Your task to perform on an android device: Open my contact list Image 0: 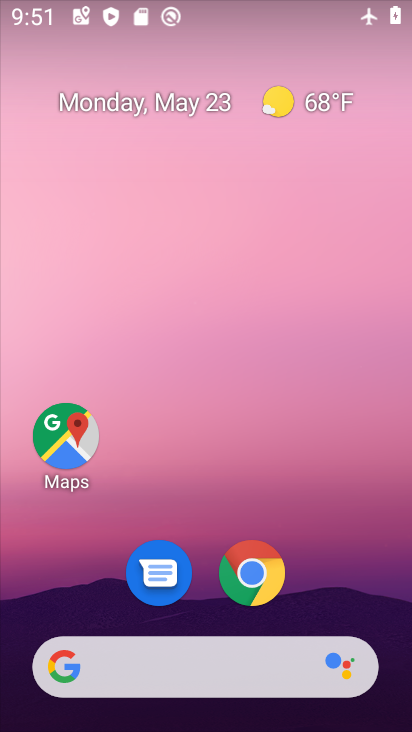
Step 0: drag from (265, 616) to (270, 175)
Your task to perform on an android device: Open my contact list Image 1: 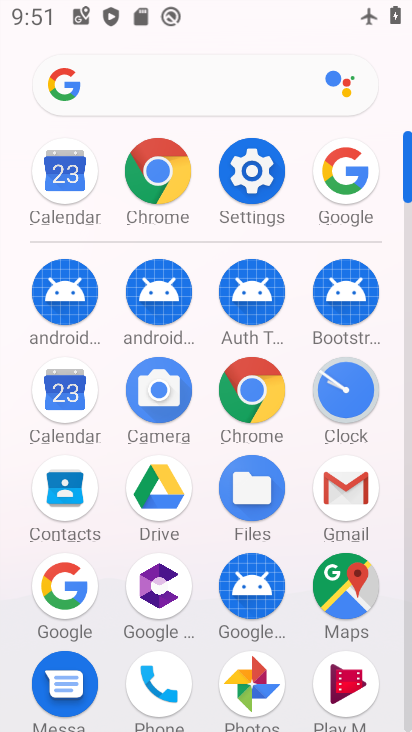
Step 1: click (86, 484)
Your task to perform on an android device: Open my contact list Image 2: 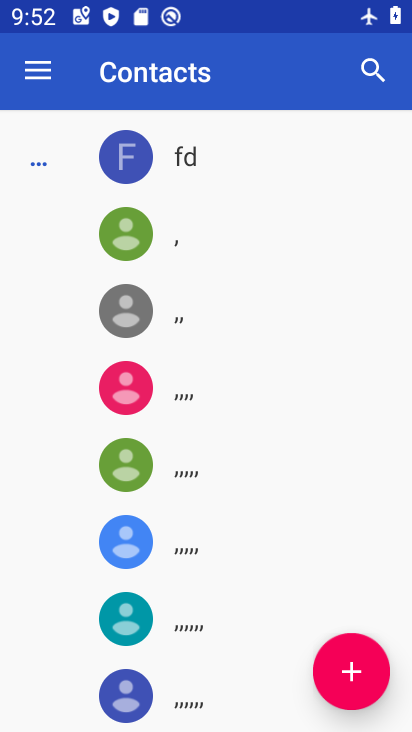
Step 2: task complete